Your task to perform on an android device: Search for seafood restaurants on Google Maps Image 0: 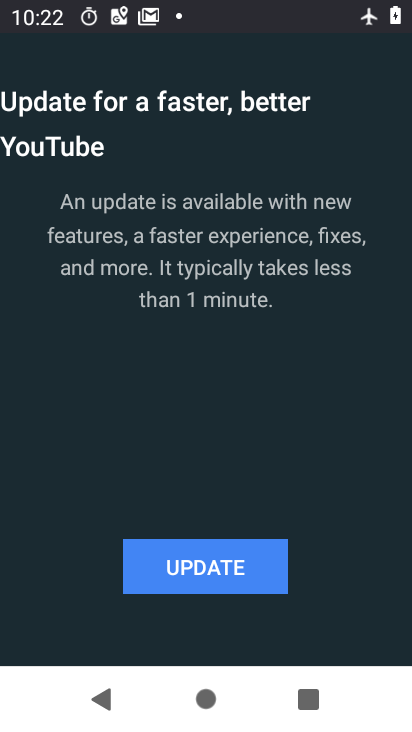
Step 0: press home button
Your task to perform on an android device: Search for seafood restaurants on Google Maps Image 1: 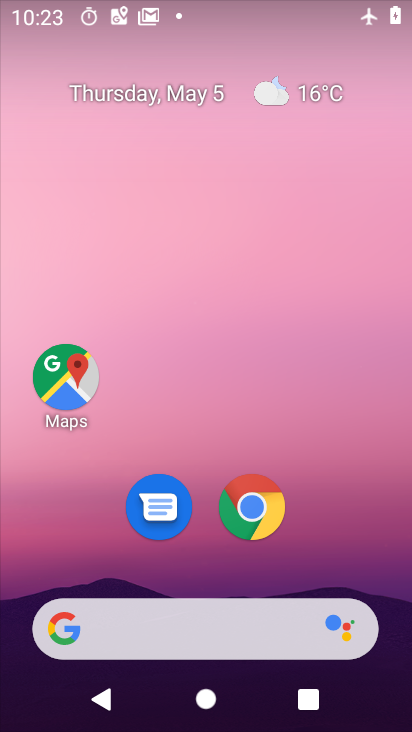
Step 1: click (62, 371)
Your task to perform on an android device: Search for seafood restaurants on Google Maps Image 2: 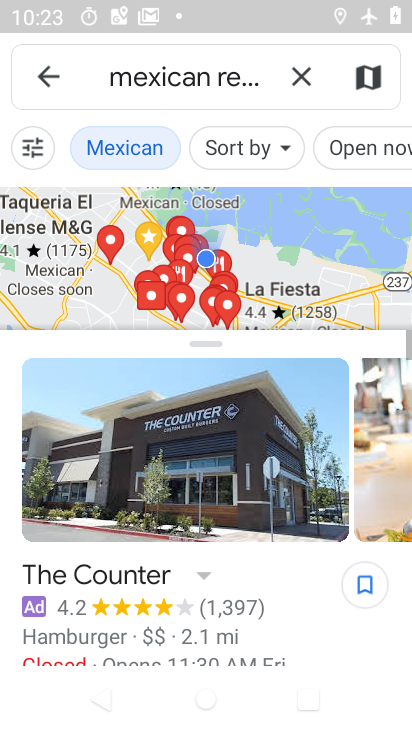
Step 2: click (308, 77)
Your task to perform on an android device: Search for seafood restaurants on Google Maps Image 3: 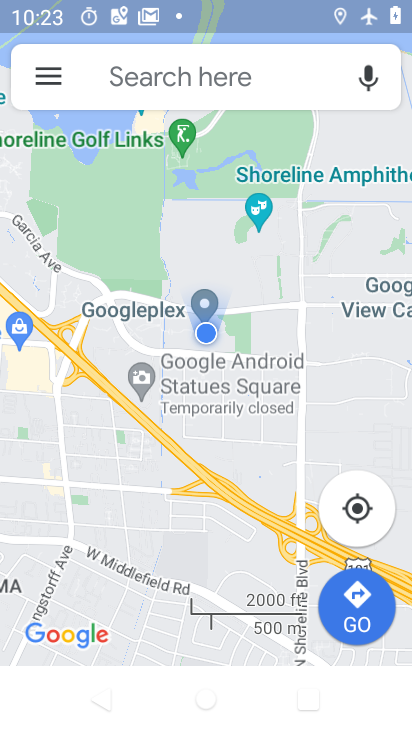
Step 3: click (197, 82)
Your task to perform on an android device: Search for seafood restaurants on Google Maps Image 4: 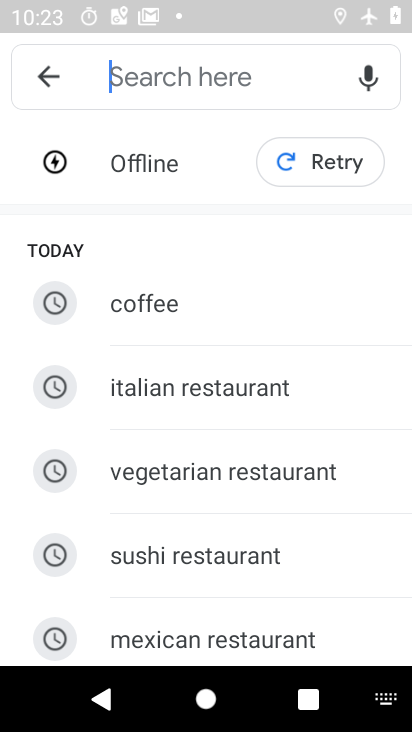
Step 4: type "seafood restaurants"
Your task to perform on an android device: Search for seafood restaurants on Google Maps Image 5: 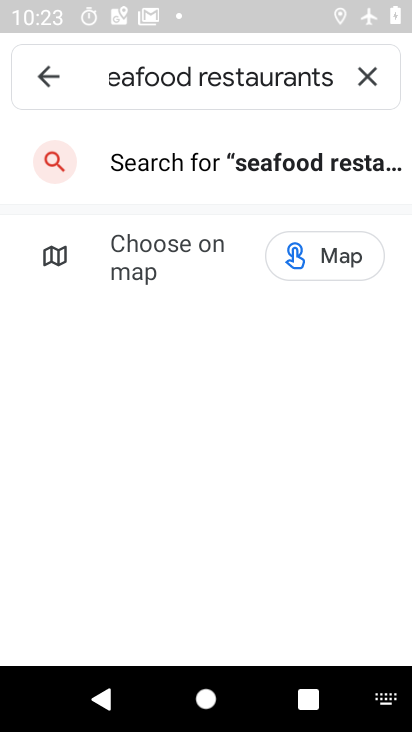
Step 5: click (261, 159)
Your task to perform on an android device: Search for seafood restaurants on Google Maps Image 6: 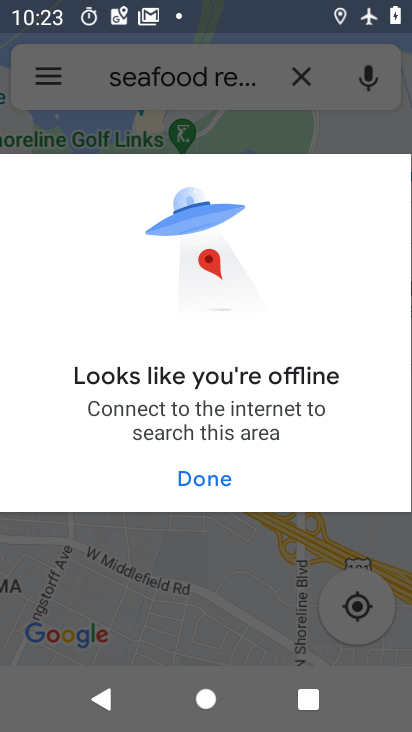
Step 6: task complete